Your task to perform on an android device: Open the calendar and show me this week's events? Image 0: 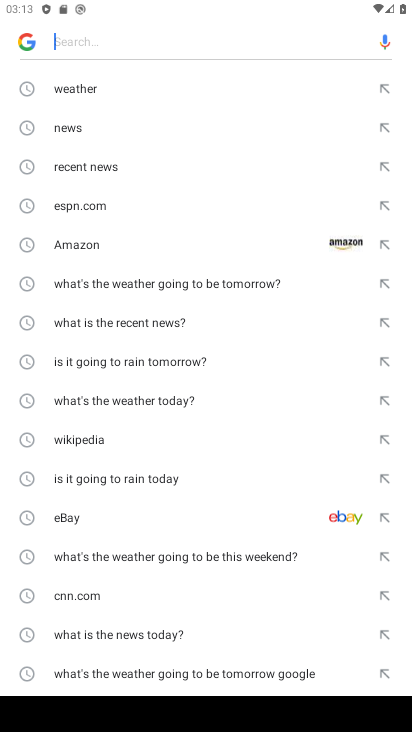
Step 0: press home button
Your task to perform on an android device: Open the calendar and show me this week's events? Image 1: 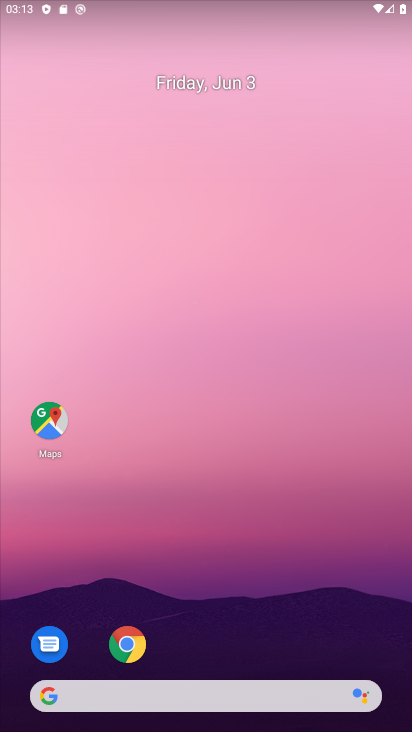
Step 1: drag from (400, 713) to (141, 6)
Your task to perform on an android device: Open the calendar and show me this week's events? Image 2: 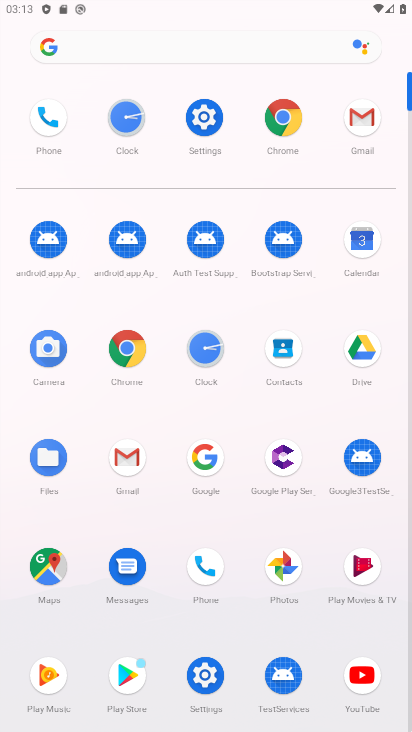
Step 2: click (376, 241)
Your task to perform on an android device: Open the calendar and show me this week's events? Image 3: 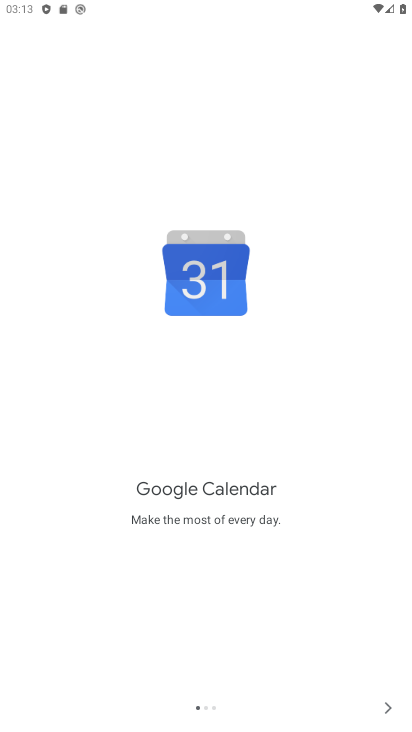
Step 3: click (390, 702)
Your task to perform on an android device: Open the calendar and show me this week's events? Image 4: 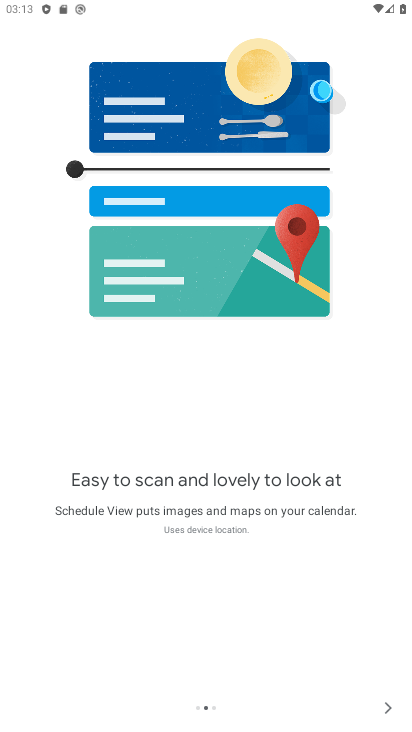
Step 4: click (390, 702)
Your task to perform on an android device: Open the calendar and show me this week's events? Image 5: 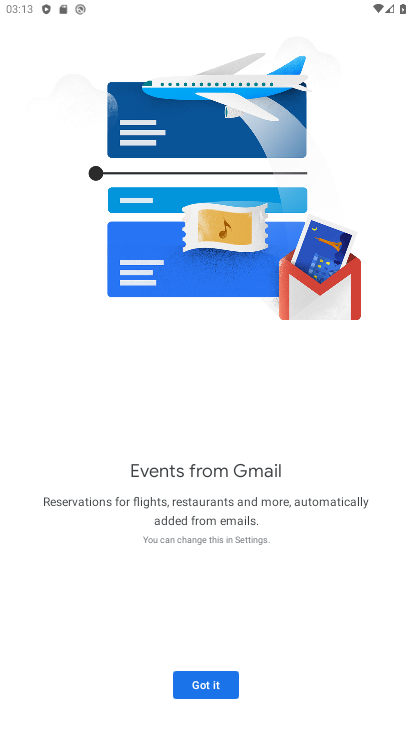
Step 5: click (226, 694)
Your task to perform on an android device: Open the calendar and show me this week's events? Image 6: 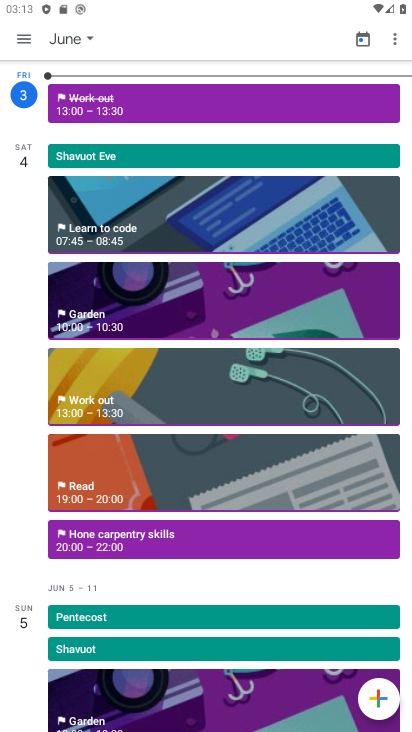
Step 6: click (90, 47)
Your task to perform on an android device: Open the calendar and show me this week's events? Image 7: 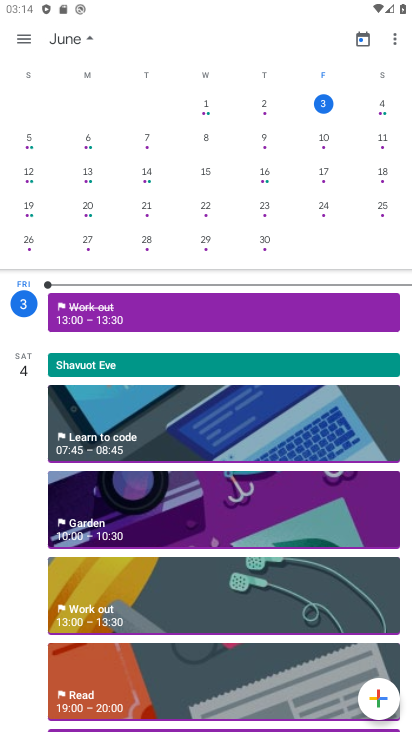
Step 7: click (29, 137)
Your task to perform on an android device: Open the calendar and show me this week's events? Image 8: 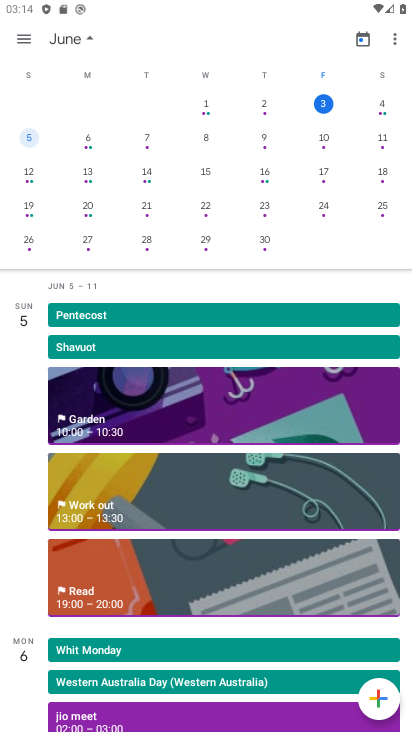
Step 8: click (87, 148)
Your task to perform on an android device: Open the calendar and show me this week's events? Image 9: 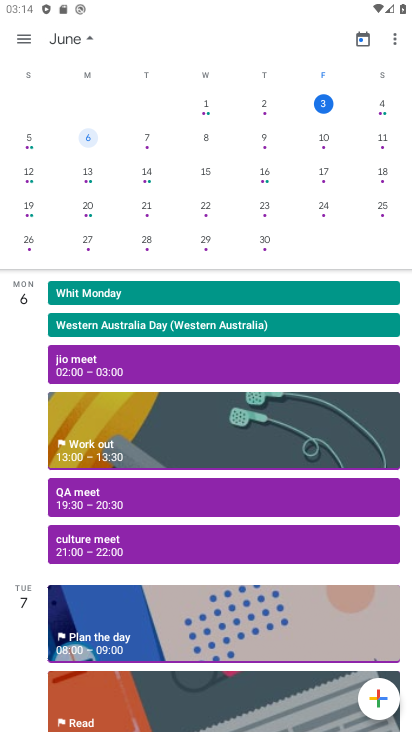
Step 9: click (80, 39)
Your task to perform on an android device: Open the calendar and show me this week's events? Image 10: 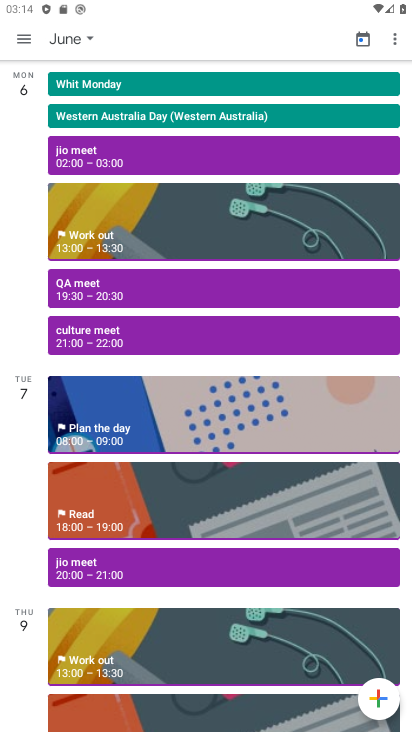
Step 10: task complete